Your task to perform on an android device: Open location settings Image 0: 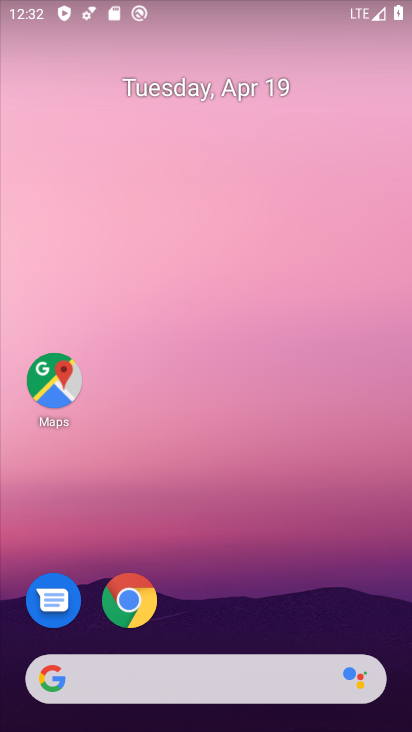
Step 0: drag from (226, 595) to (302, 72)
Your task to perform on an android device: Open location settings Image 1: 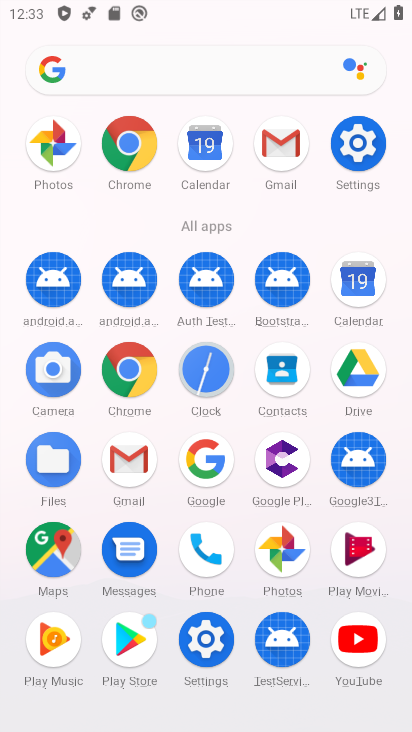
Step 1: click (359, 138)
Your task to perform on an android device: Open location settings Image 2: 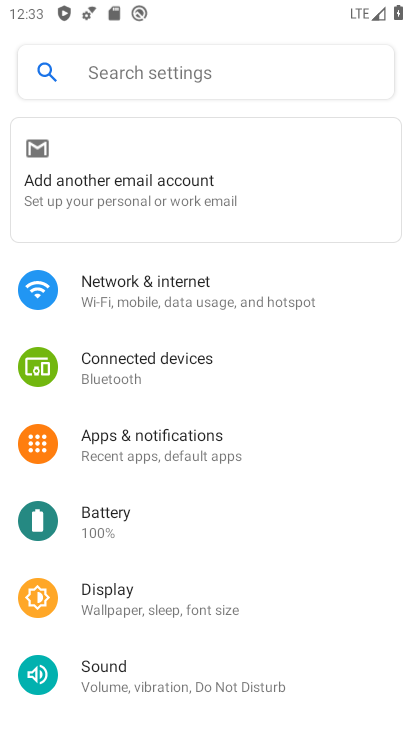
Step 2: drag from (209, 555) to (225, 242)
Your task to perform on an android device: Open location settings Image 3: 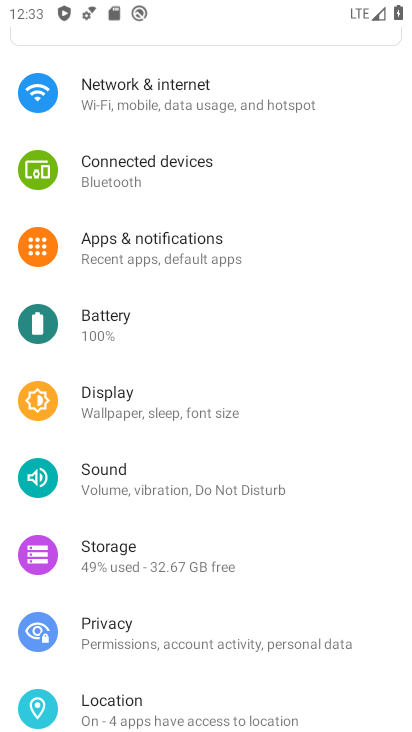
Step 3: drag from (189, 596) to (256, 290)
Your task to perform on an android device: Open location settings Image 4: 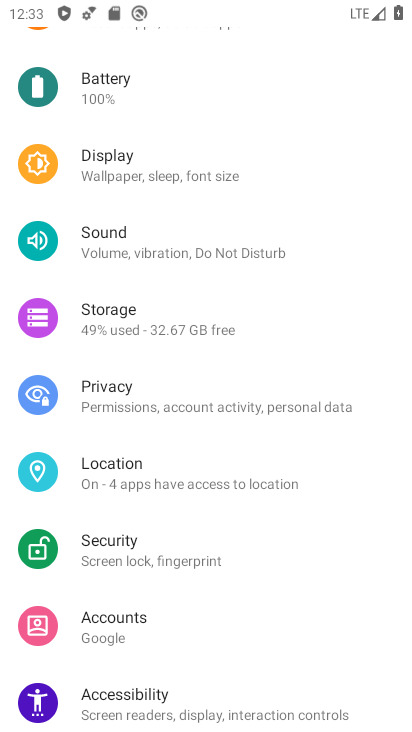
Step 4: click (166, 497)
Your task to perform on an android device: Open location settings Image 5: 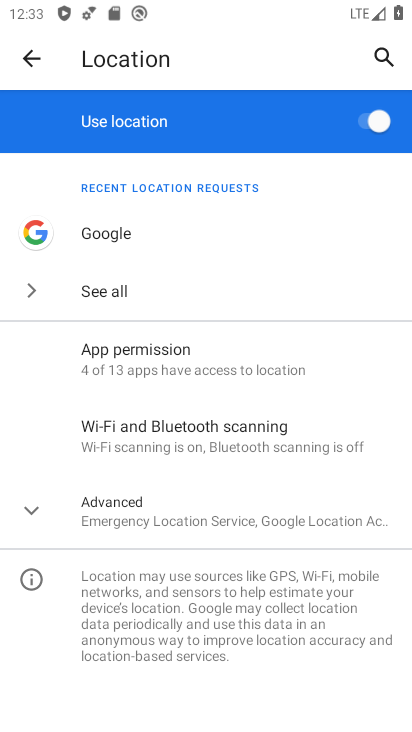
Step 5: task complete